Your task to perform on an android device: toggle notification dots Image 0: 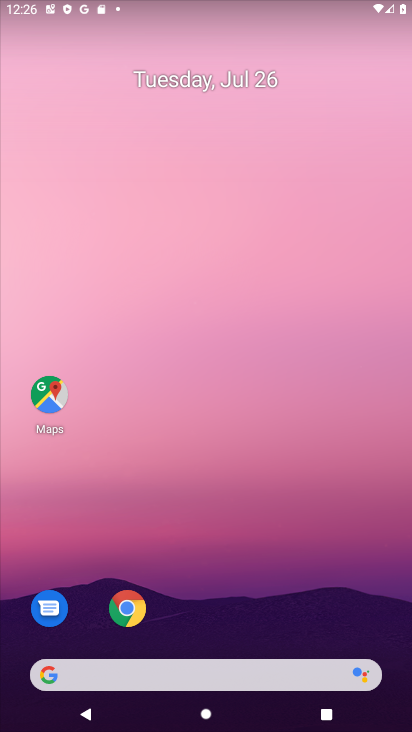
Step 0: drag from (200, 640) to (269, 71)
Your task to perform on an android device: toggle notification dots Image 1: 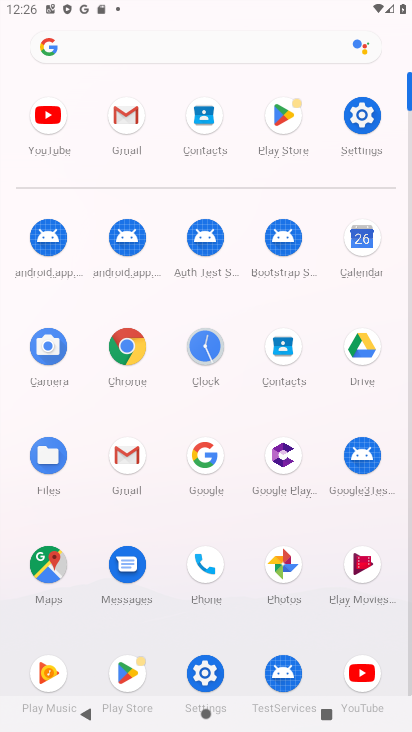
Step 1: click (381, 123)
Your task to perform on an android device: toggle notification dots Image 2: 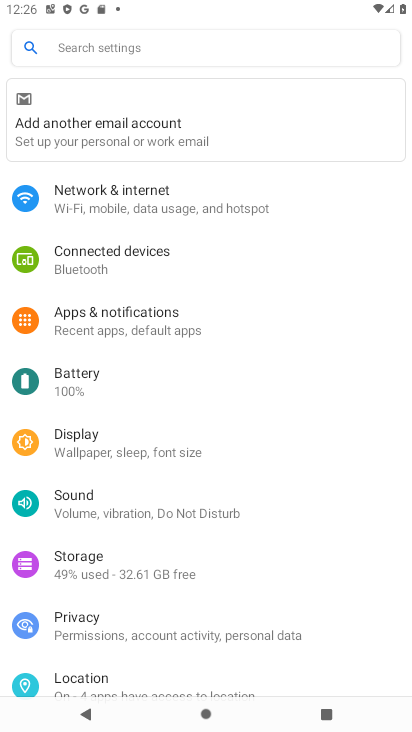
Step 2: click (113, 314)
Your task to perform on an android device: toggle notification dots Image 3: 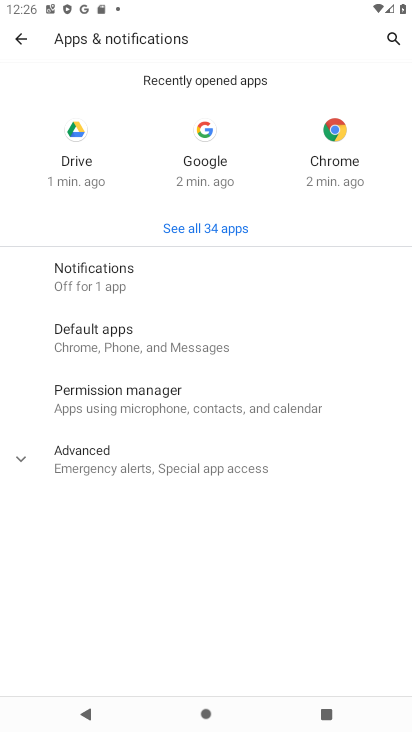
Step 3: click (134, 294)
Your task to perform on an android device: toggle notification dots Image 4: 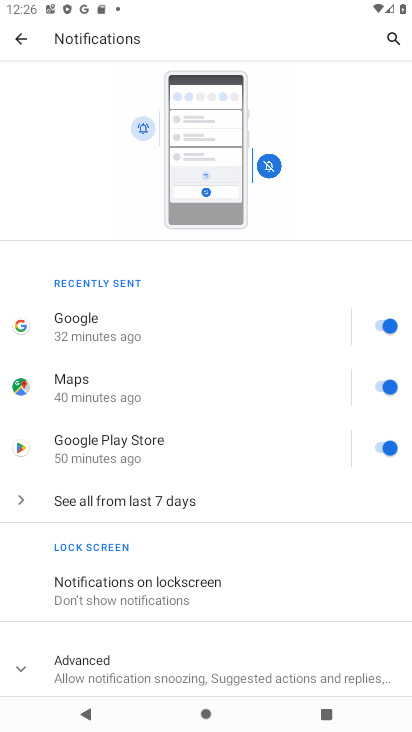
Step 4: click (173, 678)
Your task to perform on an android device: toggle notification dots Image 5: 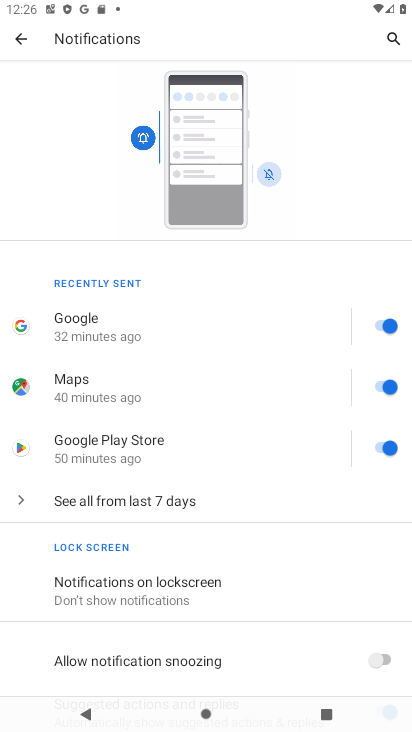
Step 5: drag from (204, 662) to (175, 97)
Your task to perform on an android device: toggle notification dots Image 6: 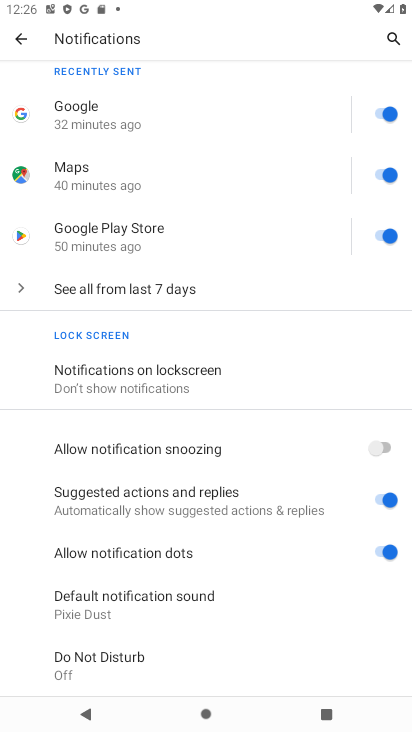
Step 6: click (386, 547)
Your task to perform on an android device: toggle notification dots Image 7: 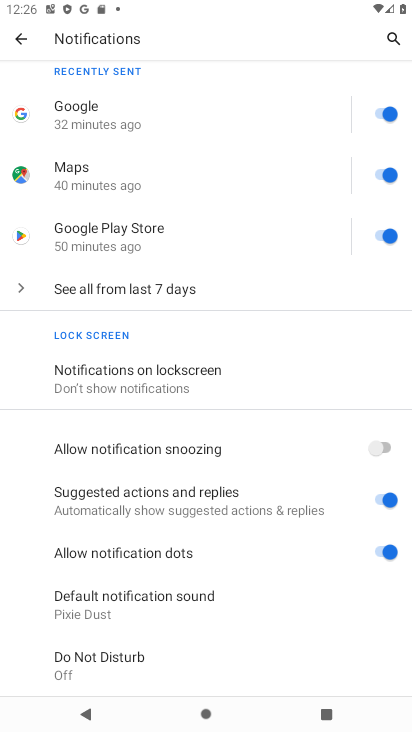
Step 7: click (386, 547)
Your task to perform on an android device: toggle notification dots Image 8: 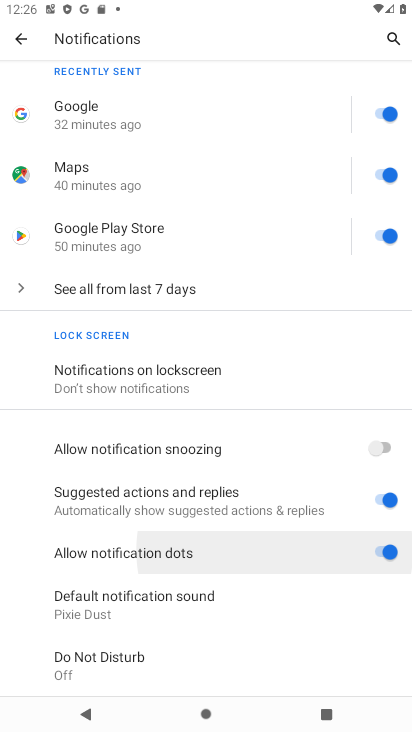
Step 8: click (386, 547)
Your task to perform on an android device: toggle notification dots Image 9: 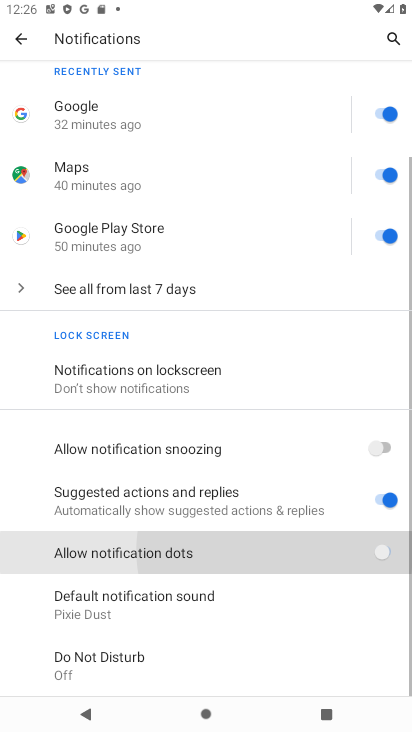
Step 9: click (386, 547)
Your task to perform on an android device: toggle notification dots Image 10: 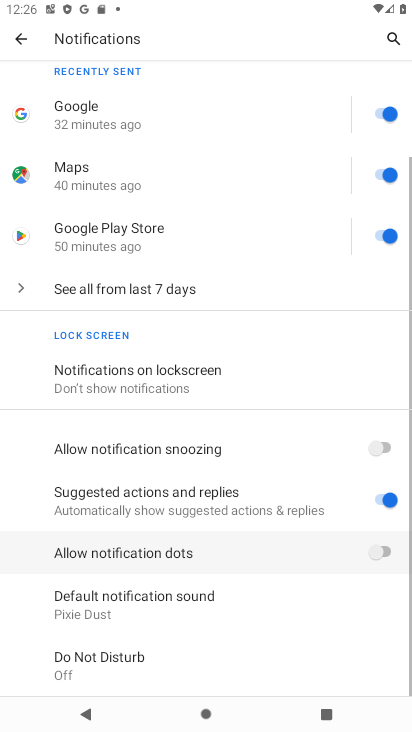
Step 10: click (386, 547)
Your task to perform on an android device: toggle notification dots Image 11: 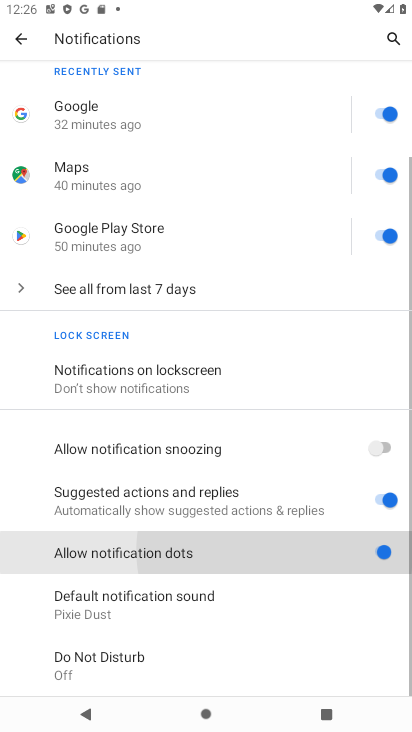
Step 11: click (386, 547)
Your task to perform on an android device: toggle notification dots Image 12: 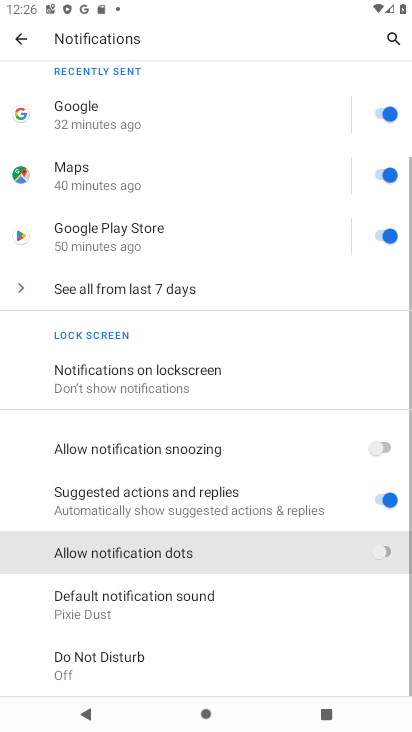
Step 12: click (386, 547)
Your task to perform on an android device: toggle notification dots Image 13: 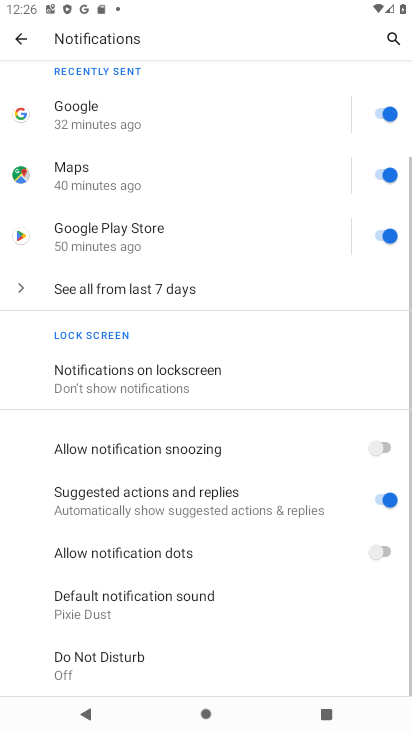
Step 13: task complete